Your task to perform on an android device: change keyboard looks Image 0: 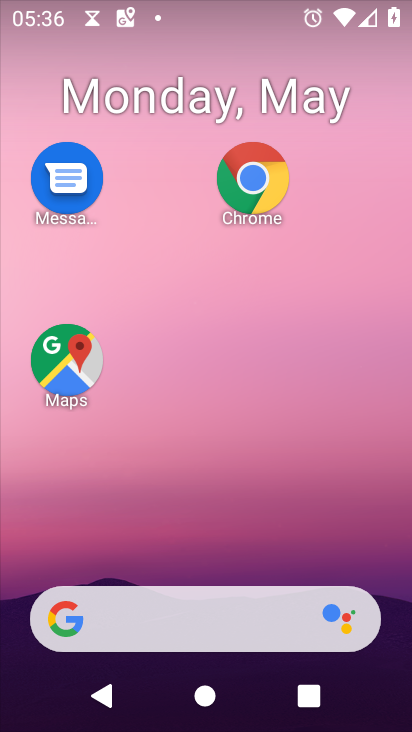
Step 0: drag from (222, 540) to (141, 139)
Your task to perform on an android device: change keyboard looks Image 1: 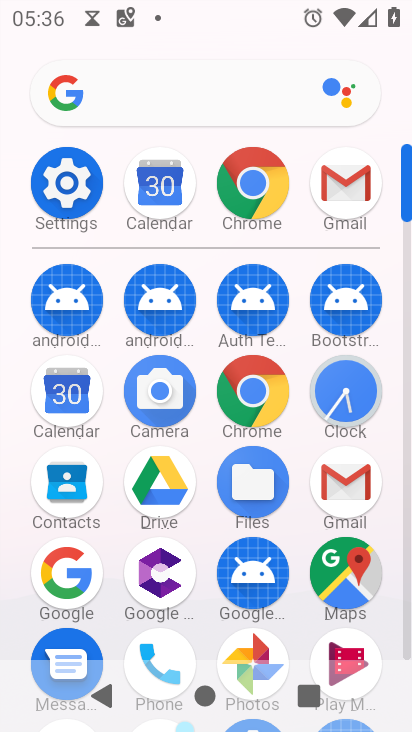
Step 1: click (67, 179)
Your task to perform on an android device: change keyboard looks Image 2: 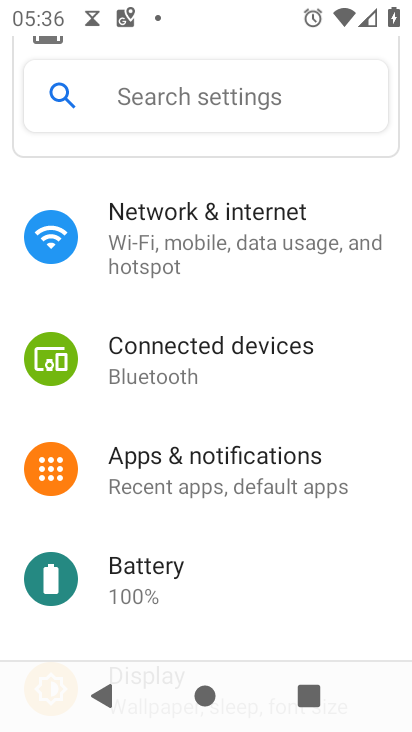
Step 2: drag from (232, 576) to (219, 37)
Your task to perform on an android device: change keyboard looks Image 3: 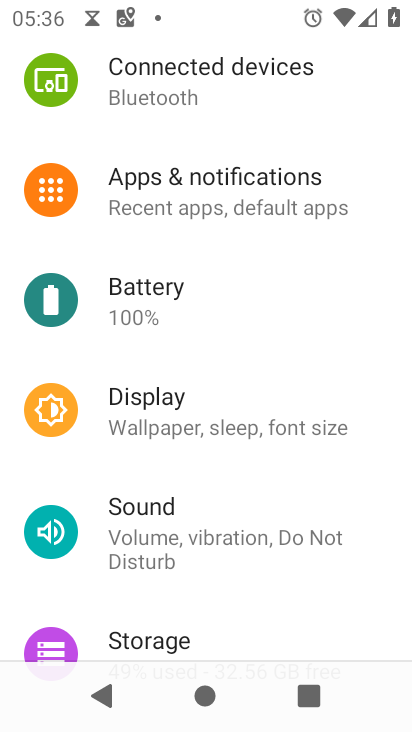
Step 3: drag from (195, 548) to (185, 2)
Your task to perform on an android device: change keyboard looks Image 4: 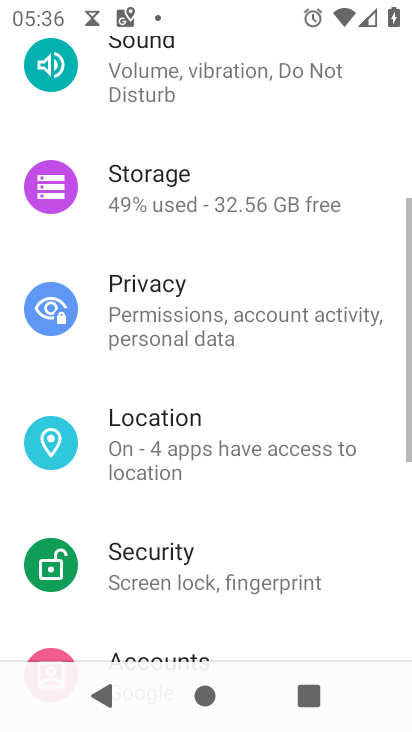
Step 4: drag from (226, 527) to (232, 24)
Your task to perform on an android device: change keyboard looks Image 5: 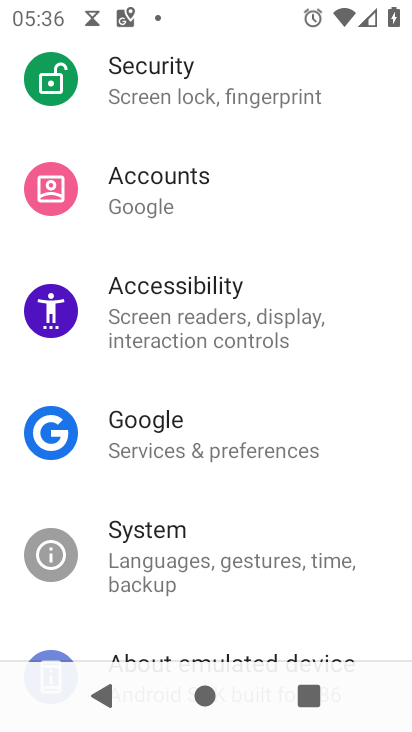
Step 5: click (177, 576)
Your task to perform on an android device: change keyboard looks Image 6: 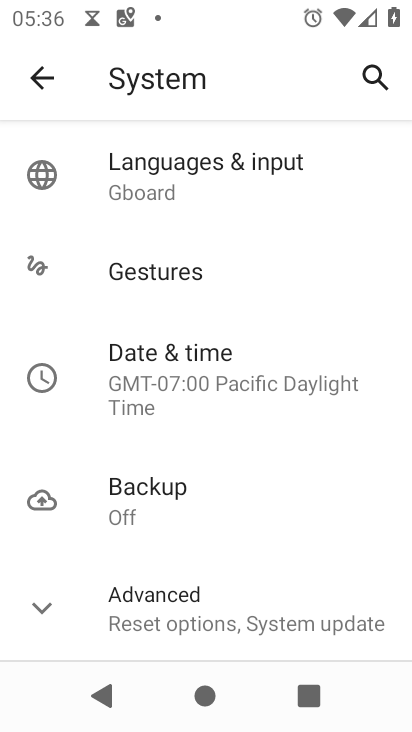
Step 6: click (190, 171)
Your task to perform on an android device: change keyboard looks Image 7: 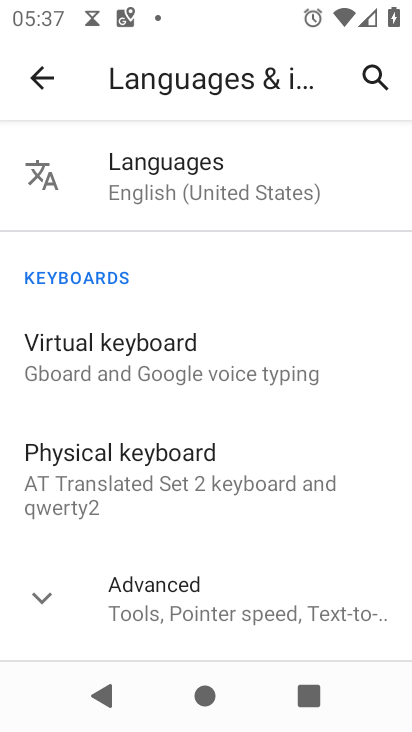
Step 7: click (122, 357)
Your task to perform on an android device: change keyboard looks Image 8: 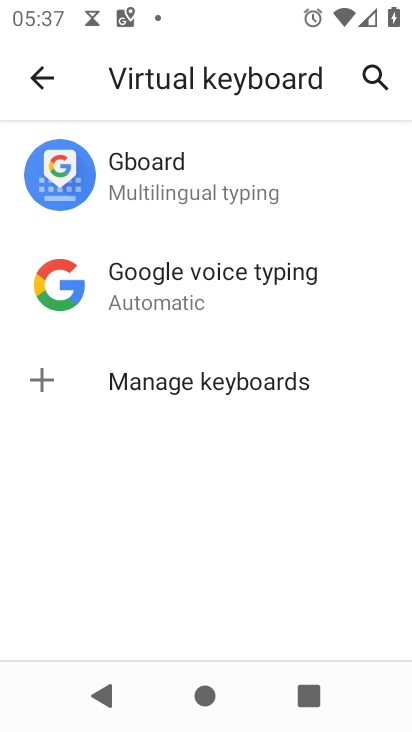
Step 8: click (180, 175)
Your task to perform on an android device: change keyboard looks Image 9: 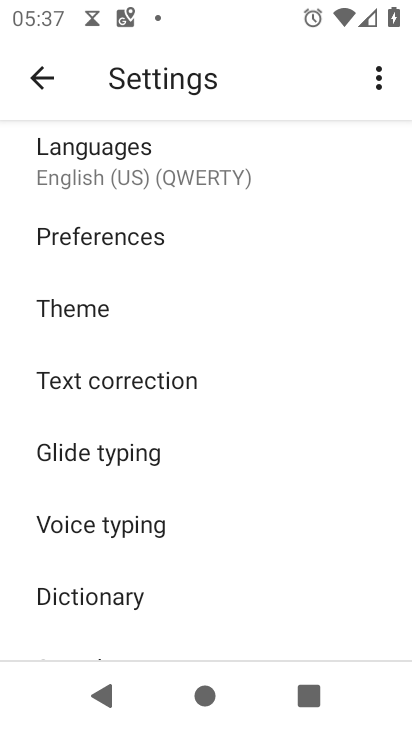
Step 9: click (104, 312)
Your task to perform on an android device: change keyboard looks Image 10: 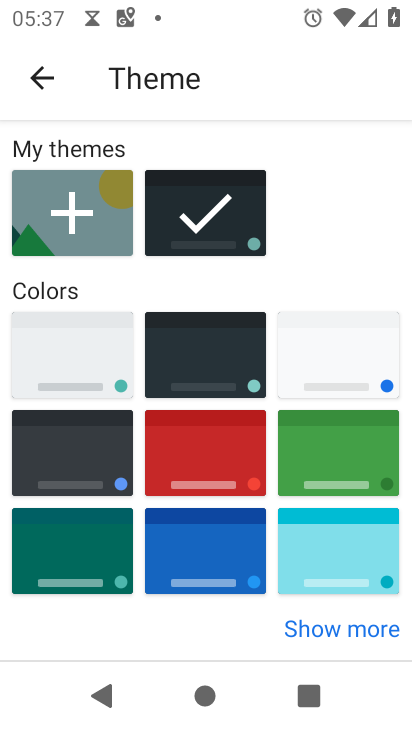
Step 10: click (206, 343)
Your task to perform on an android device: change keyboard looks Image 11: 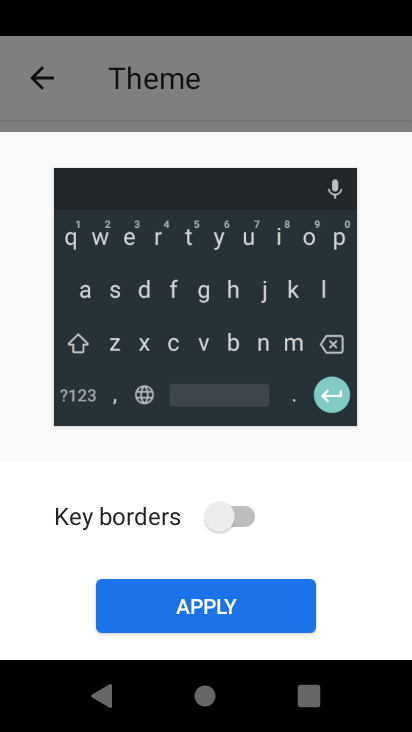
Step 11: click (191, 611)
Your task to perform on an android device: change keyboard looks Image 12: 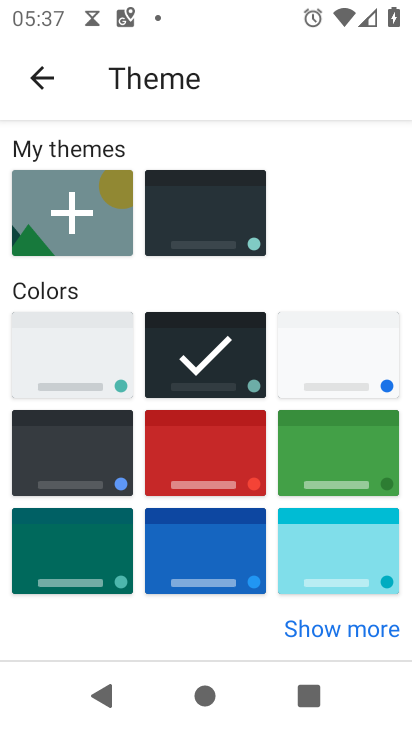
Step 12: task complete